Your task to perform on an android device: Search for pizza restaurants on Maps Image 0: 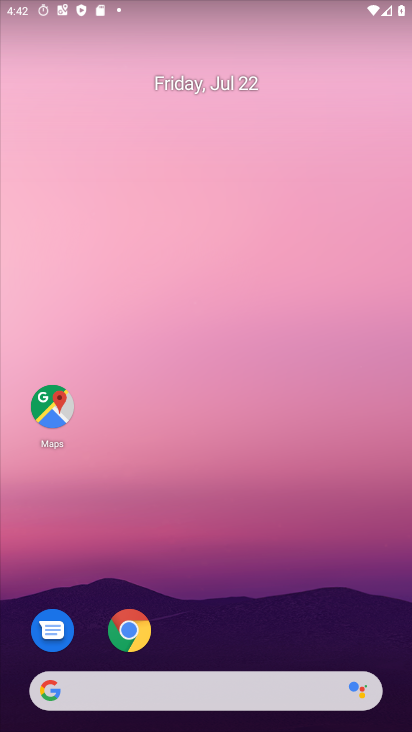
Step 0: drag from (331, 695) to (339, 102)
Your task to perform on an android device: Search for pizza restaurants on Maps Image 1: 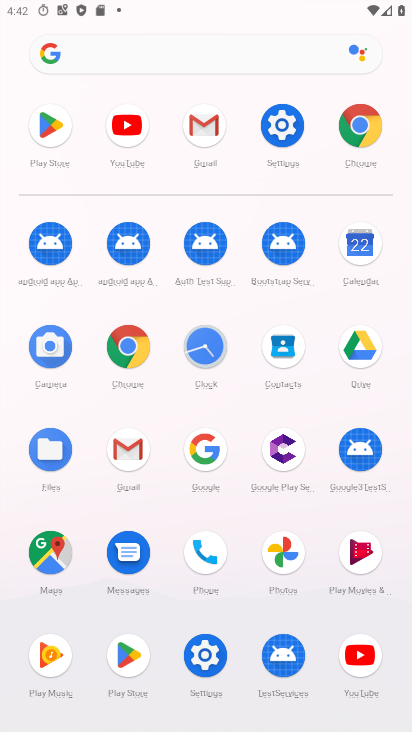
Step 1: click (52, 564)
Your task to perform on an android device: Search for pizza restaurants on Maps Image 2: 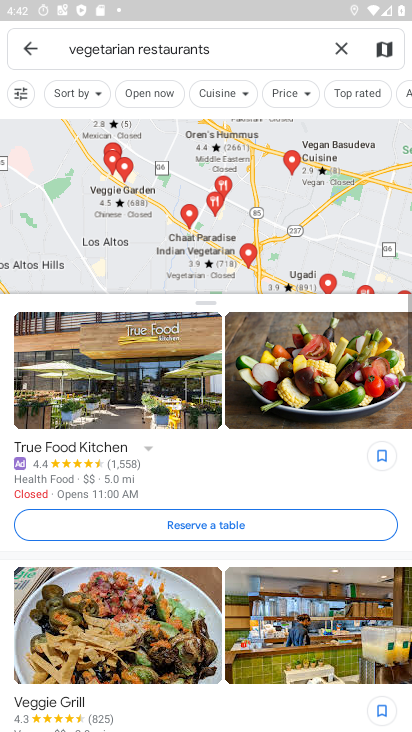
Step 2: press back button
Your task to perform on an android device: Search for pizza restaurants on Maps Image 3: 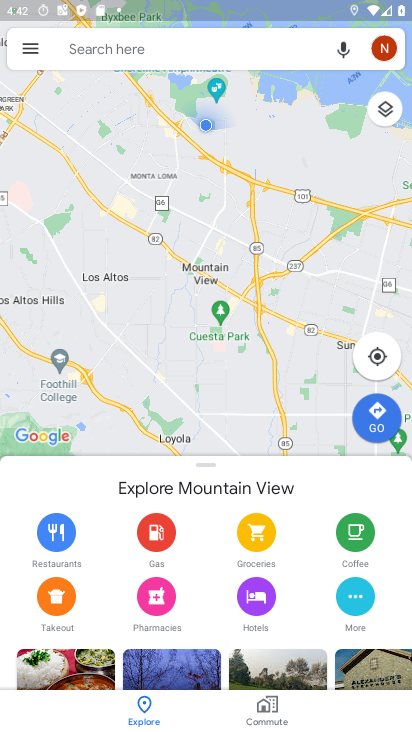
Step 3: click (163, 46)
Your task to perform on an android device: Search for pizza restaurants on Maps Image 4: 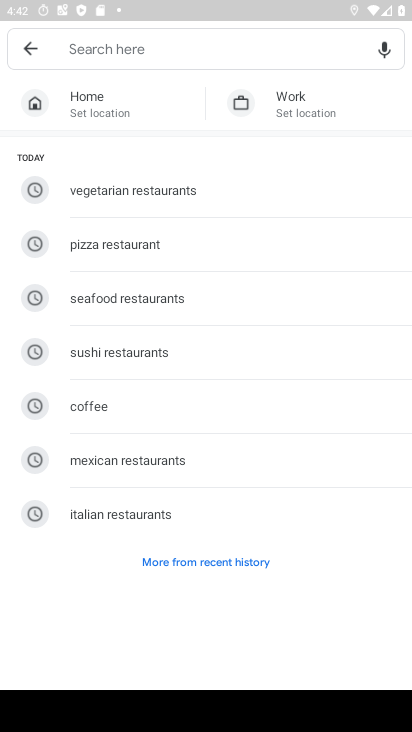
Step 4: click (121, 256)
Your task to perform on an android device: Search for pizza restaurants on Maps Image 5: 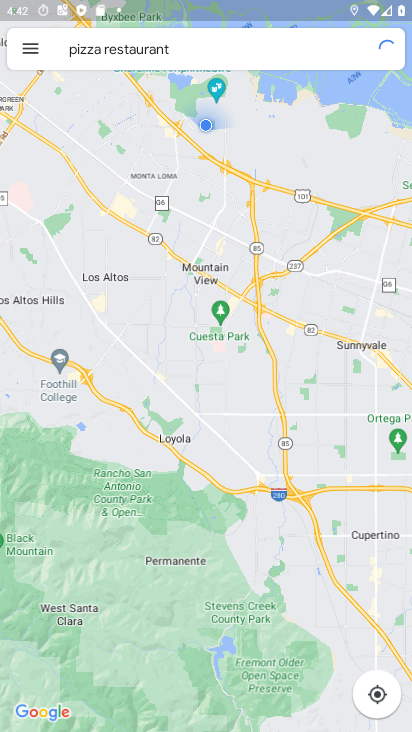
Step 5: task complete